Your task to perform on an android device: Open Google Chrome and open the bookmarks view Image 0: 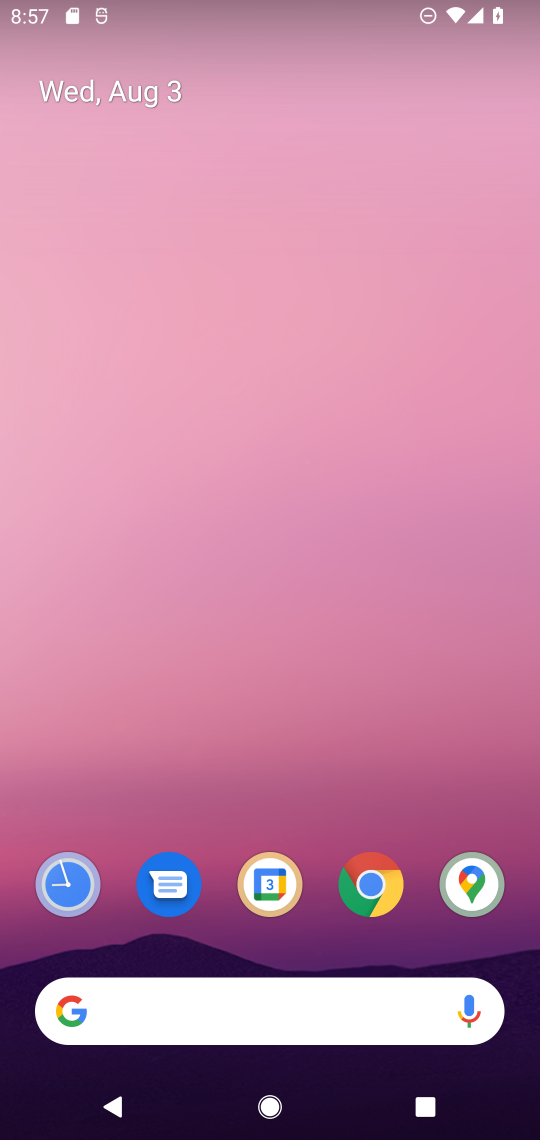
Step 0: click (349, 874)
Your task to perform on an android device: Open Google Chrome and open the bookmarks view Image 1: 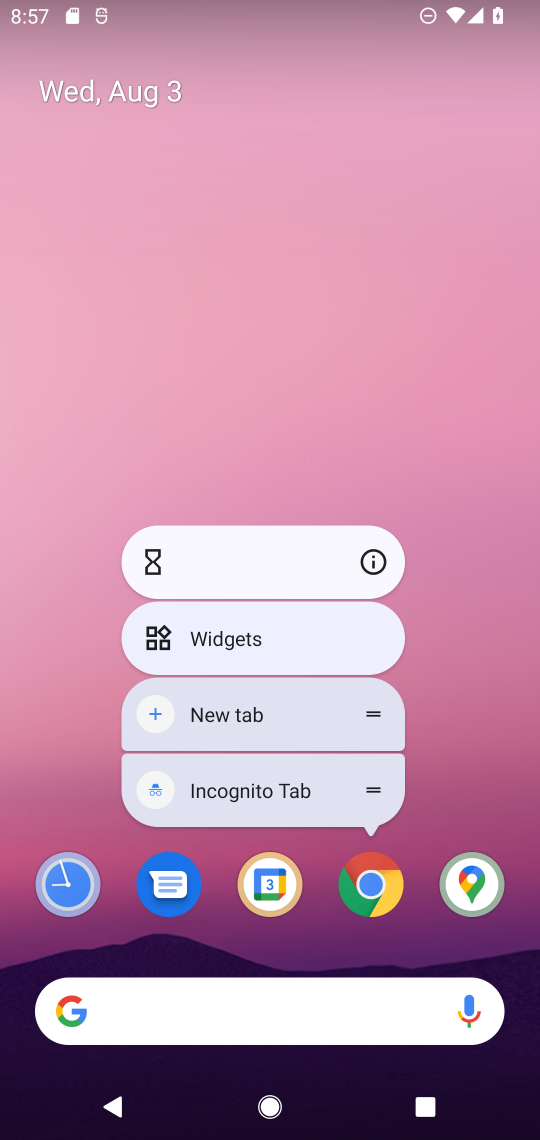
Step 1: click (362, 913)
Your task to perform on an android device: Open Google Chrome and open the bookmarks view Image 2: 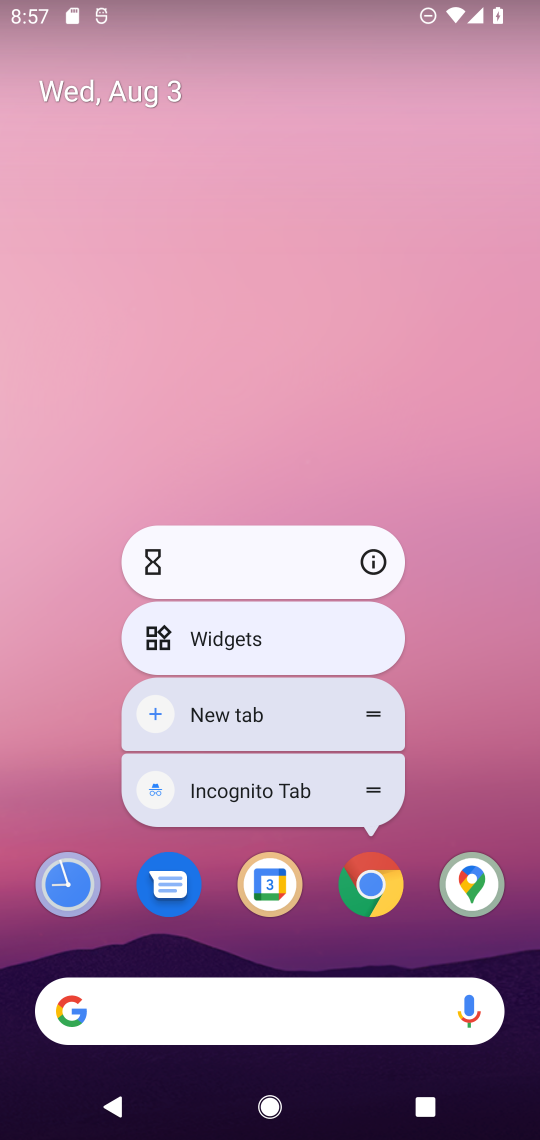
Step 2: click (382, 892)
Your task to perform on an android device: Open Google Chrome and open the bookmarks view Image 3: 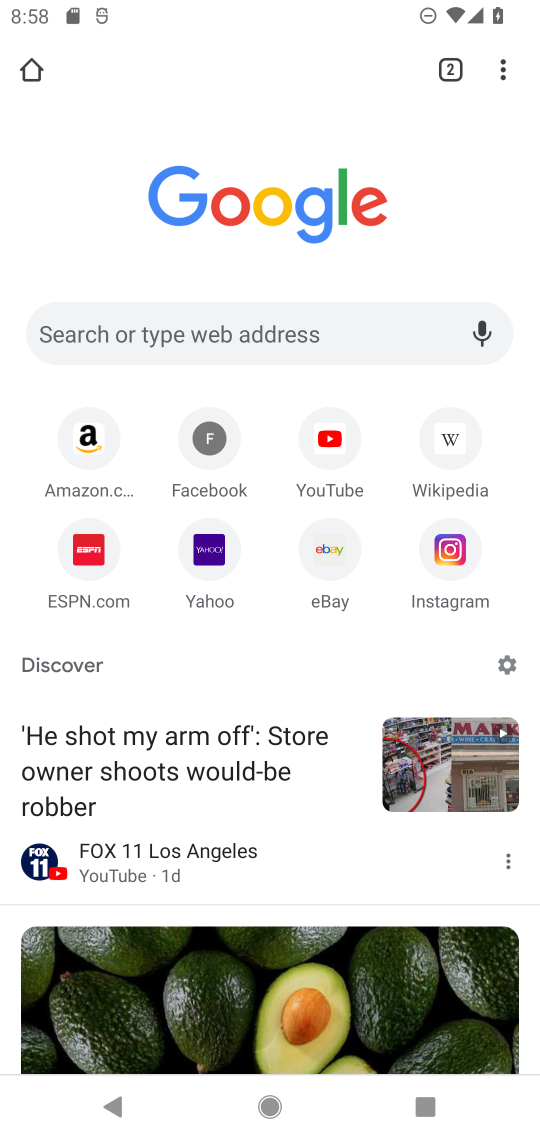
Step 3: click (517, 79)
Your task to perform on an android device: Open Google Chrome and open the bookmarks view Image 4: 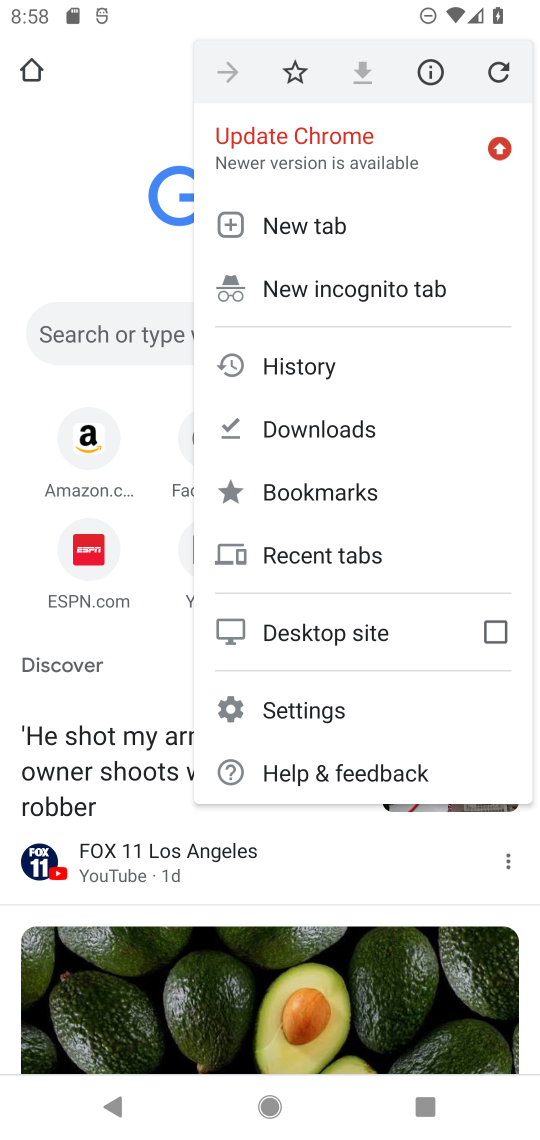
Step 4: click (313, 486)
Your task to perform on an android device: Open Google Chrome and open the bookmarks view Image 5: 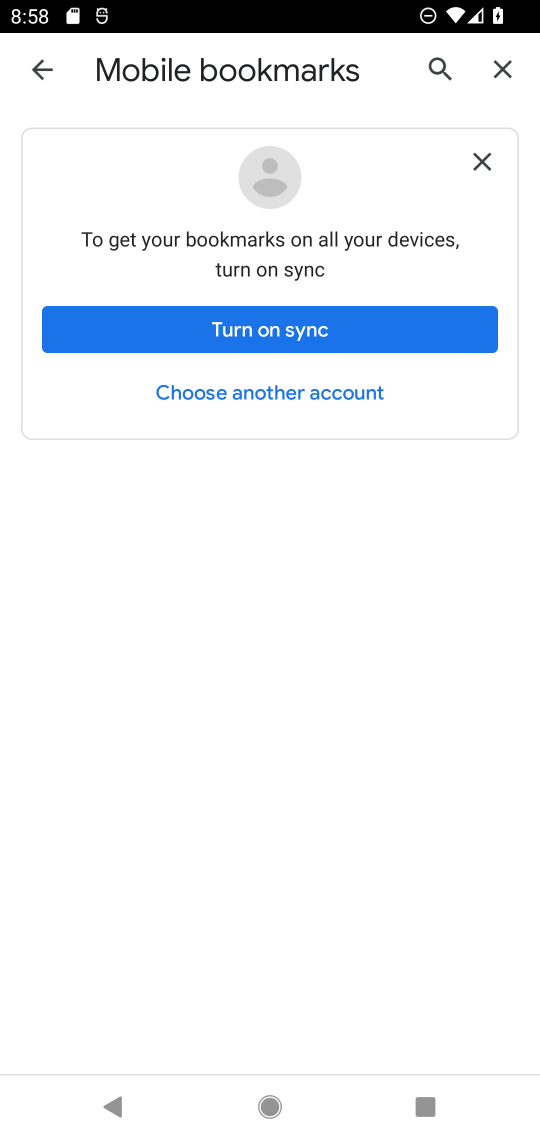
Step 5: task complete